Your task to perform on an android device: change the clock style Image 0: 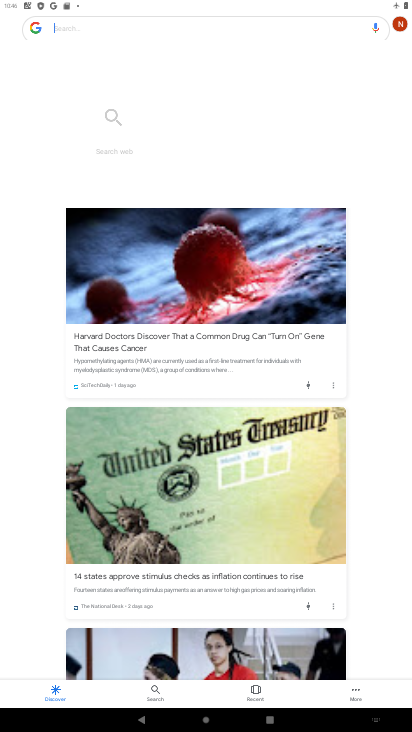
Step 0: press home button
Your task to perform on an android device: change the clock style Image 1: 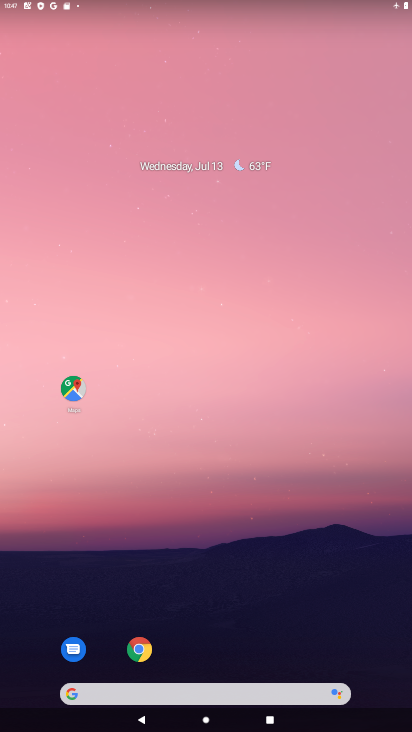
Step 1: drag from (216, 599) to (269, 298)
Your task to perform on an android device: change the clock style Image 2: 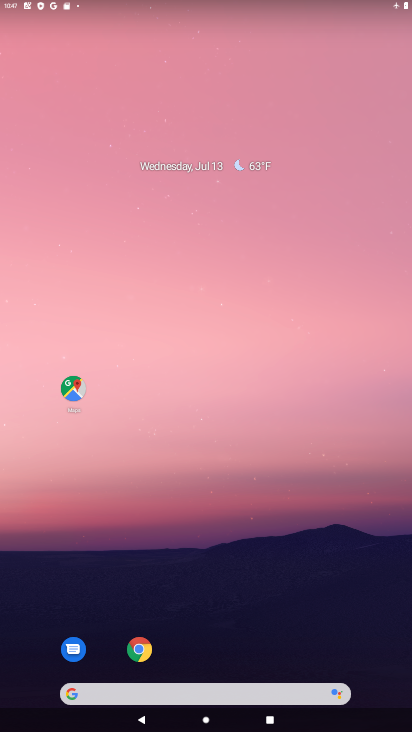
Step 2: drag from (262, 584) to (264, 274)
Your task to perform on an android device: change the clock style Image 3: 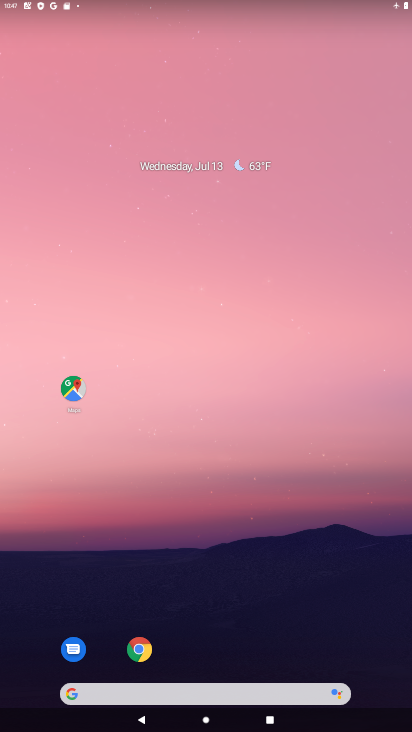
Step 3: drag from (179, 669) to (203, 357)
Your task to perform on an android device: change the clock style Image 4: 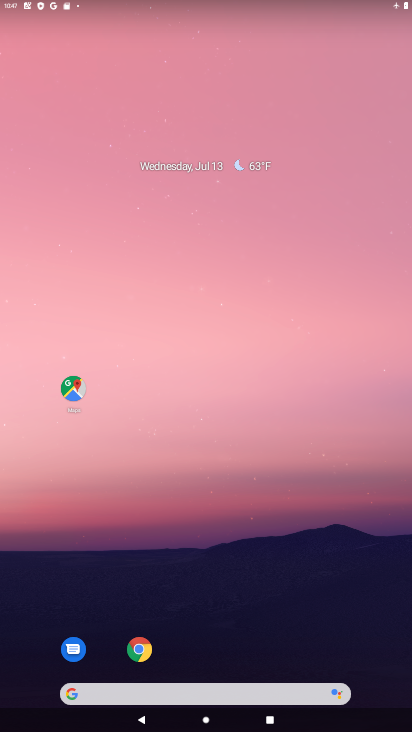
Step 4: drag from (252, 625) to (247, 196)
Your task to perform on an android device: change the clock style Image 5: 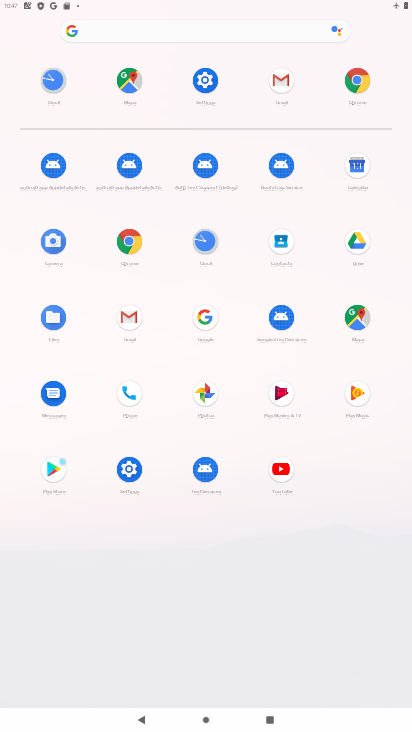
Step 5: click (197, 235)
Your task to perform on an android device: change the clock style Image 6: 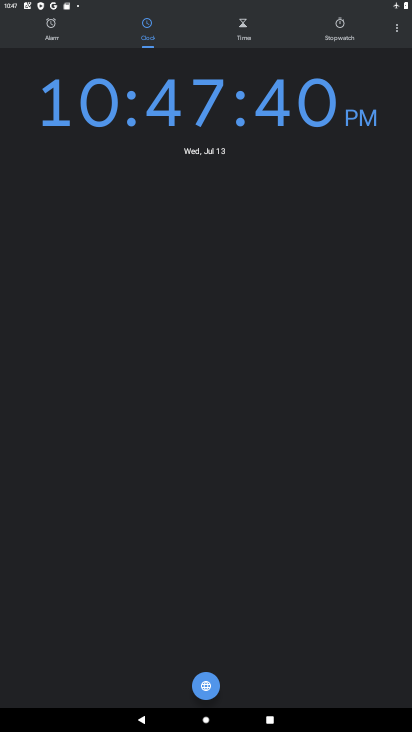
Step 6: click (405, 28)
Your task to perform on an android device: change the clock style Image 7: 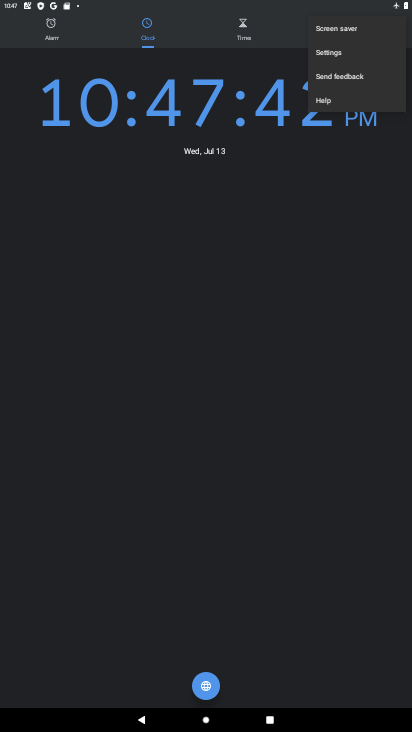
Step 7: click (342, 57)
Your task to perform on an android device: change the clock style Image 8: 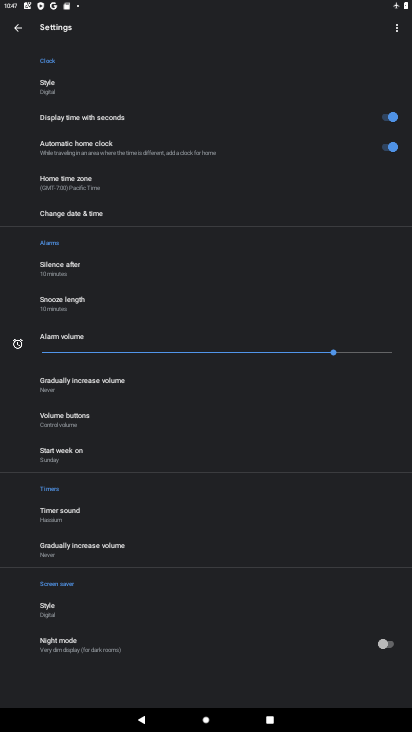
Step 8: click (76, 90)
Your task to perform on an android device: change the clock style Image 9: 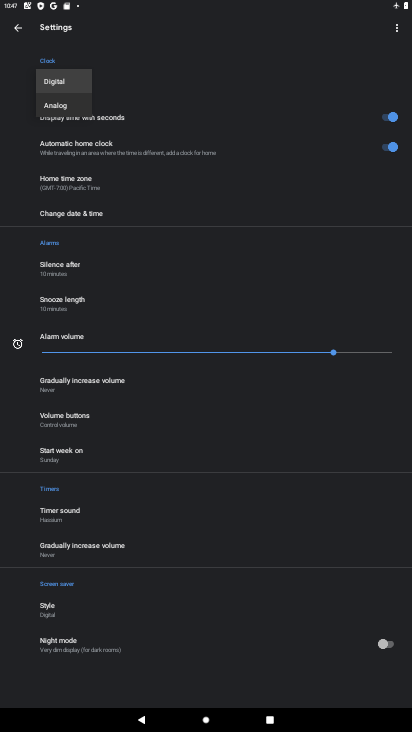
Step 9: click (66, 103)
Your task to perform on an android device: change the clock style Image 10: 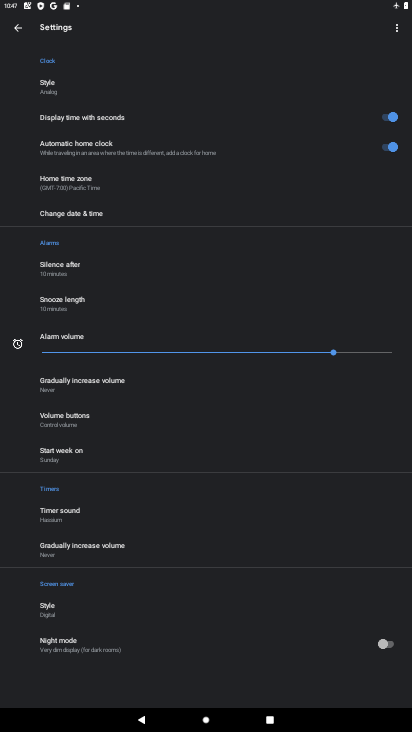
Step 10: task complete